Your task to perform on an android device: Go to calendar. Show me events next week Image 0: 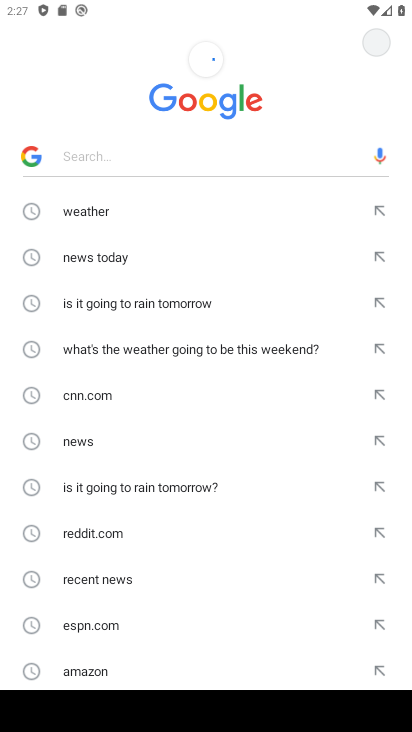
Step 0: press home button
Your task to perform on an android device: Go to calendar. Show me events next week Image 1: 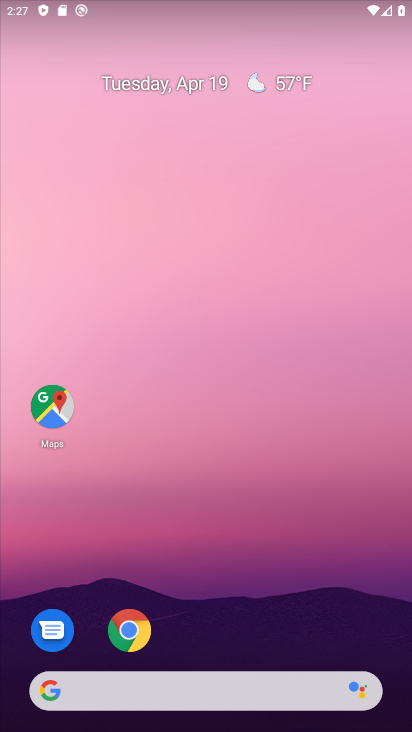
Step 1: drag from (232, 582) to (176, 38)
Your task to perform on an android device: Go to calendar. Show me events next week Image 2: 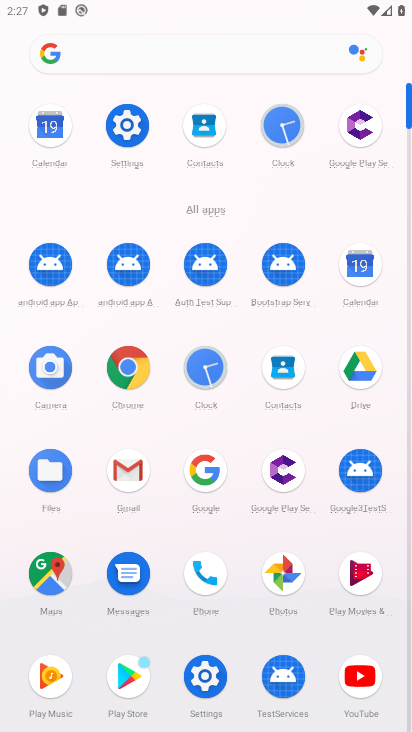
Step 2: click (359, 257)
Your task to perform on an android device: Go to calendar. Show me events next week Image 3: 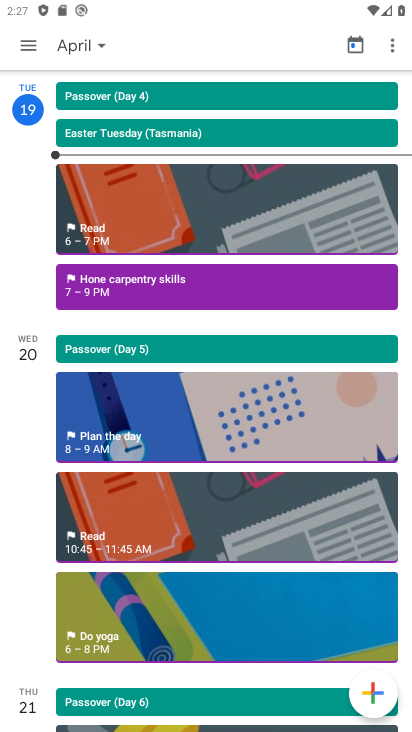
Step 3: click (30, 44)
Your task to perform on an android device: Go to calendar. Show me events next week Image 4: 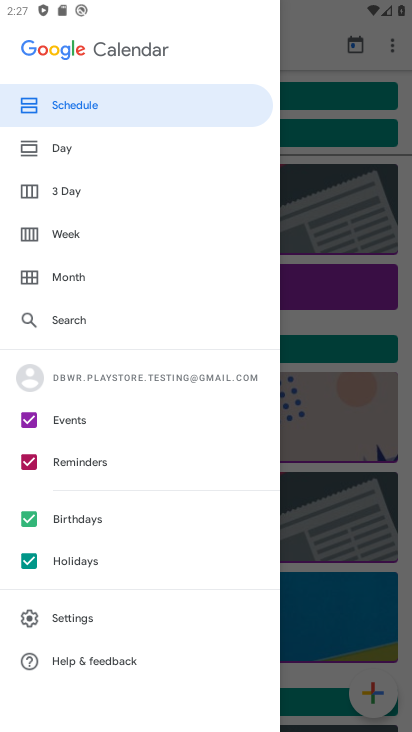
Step 4: click (70, 235)
Your task to perform on an android device: Go to calendar. Show me events next week Image 5: 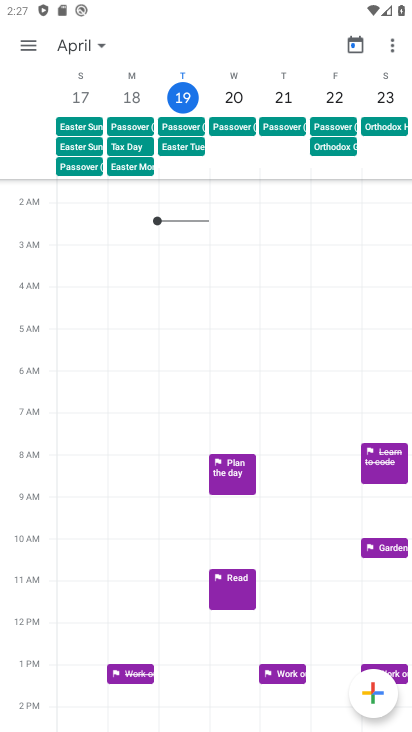
Step 5: click (99, 47)
Your task to perform on an android device: Go to calendar. Show me events next week Image 6: 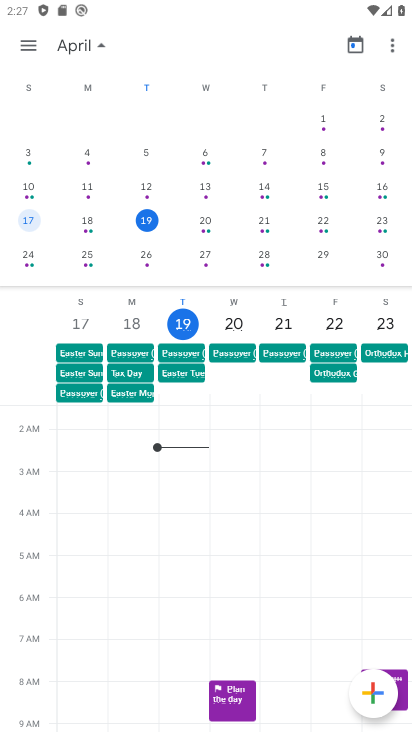
Step 6: click (35, 255)
Your task to perform on an android device: Go to calendar. Show me events next week Image 7: 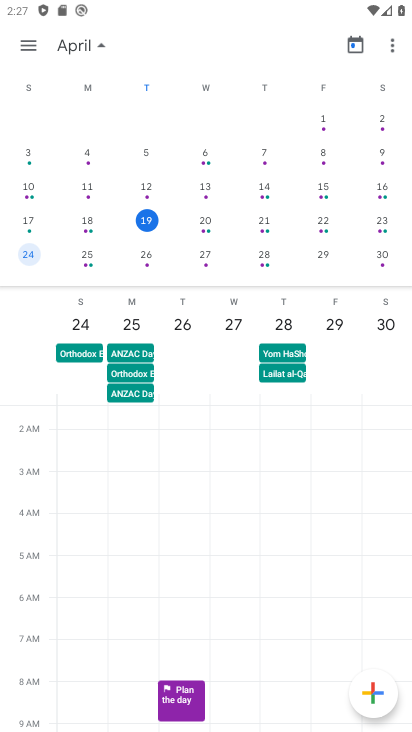
Step 7: task complete